Your task to perform on an android device: turn on priority inbox in the gmail app Image 0: 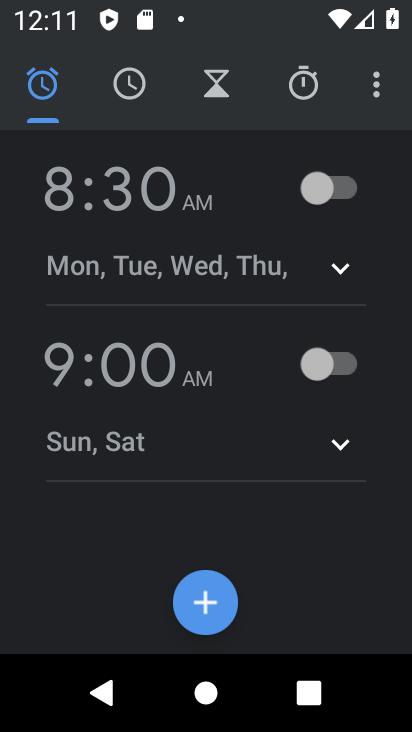
Step 0: press home button
Your task to perform on an android device: turn on priority inbox in the gmail app Image 1: 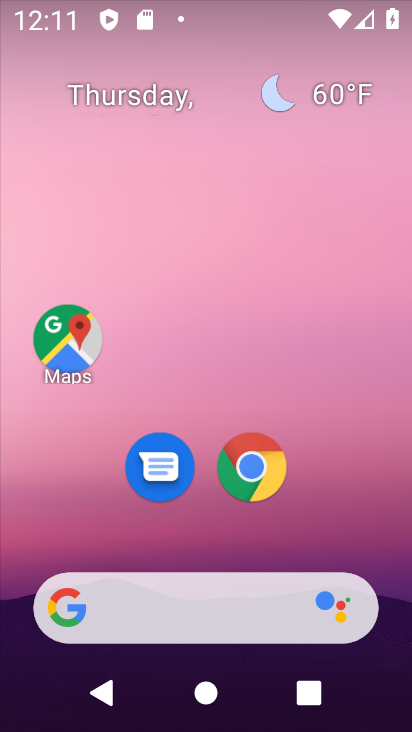
Step 1: drag from (190, 548) to (253, 2)
Your task to perform on an android device: turn on priority inbox in the gmail app Image 2: 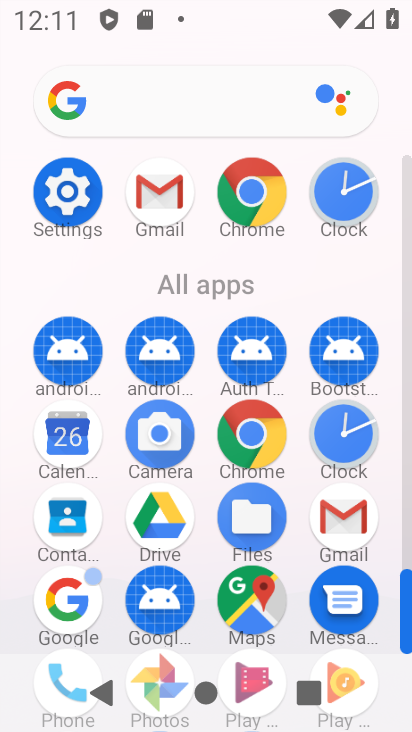
Step 2: click (349, 522)
Your task to perform on an android device: turn on priority inbox in the gmail app Image 3: 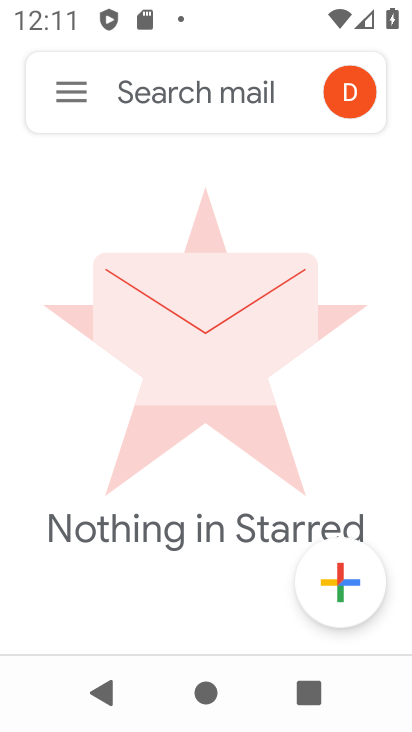
Step 3: click (76, 99)
Your task to perform on an android device: turn on priority inbox in the gmail app Image 4: 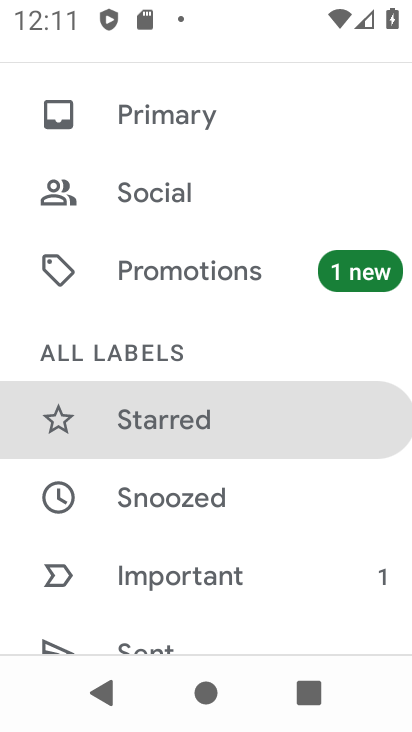
Step 4: drag from (200, 532) to (235, 55)
Your task to perform on an android device: turn on priority inbox in the gmail app Image 5: 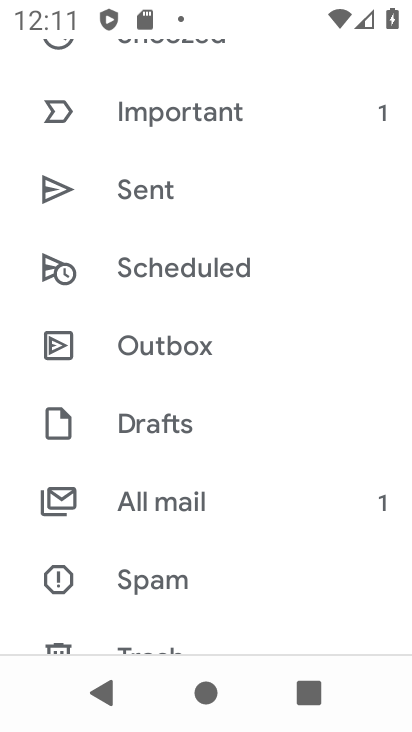
Step 5: drag from (223, 486) to (246, 151)
Your task to perform on an android device: turn on priority inbox in the gmail app Image 6: 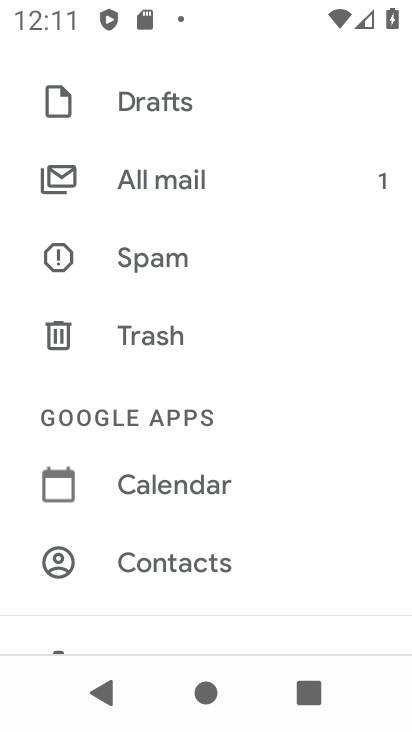
Step 6: drag from (218, 583) to (244, 187)
Your task to perform on an android device: turn on priority inbox in the gmail app Image 7: 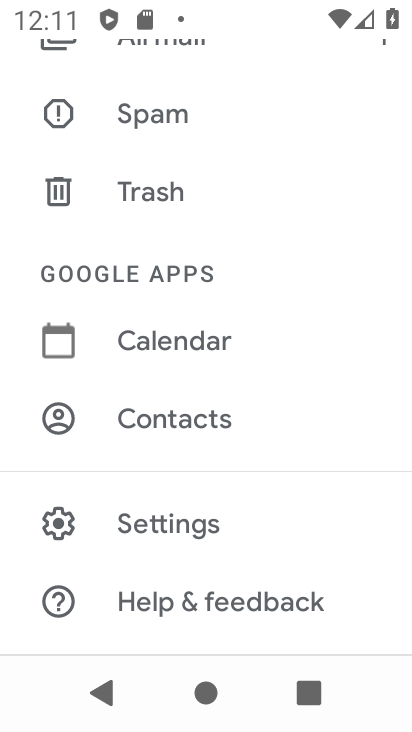
Step 7: click (194, 533)
Your task to perform on an android device: turn on priority inbox in the gmail app Image 8: 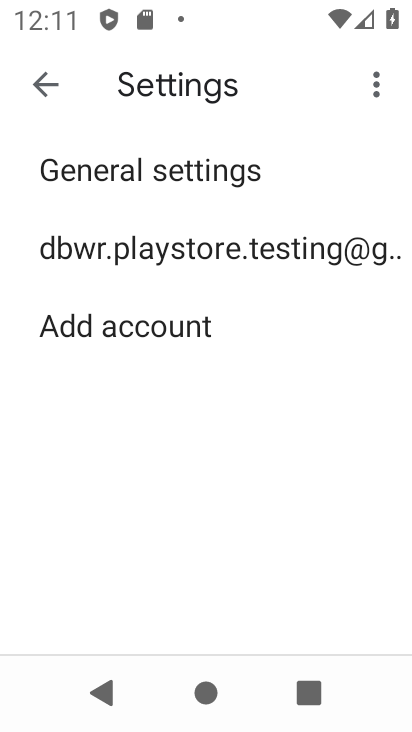
Step 8: click (171, 252)
Your task to perform on an android device: turn on priority inbox in the gmail app Image 9: 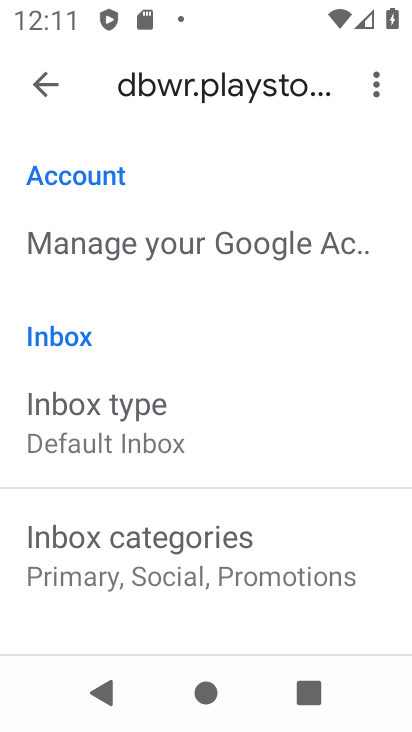
Step 9: click (167, 426)
Your task to perform on an android device: turn on priority inbox in the gmail app Image 10: 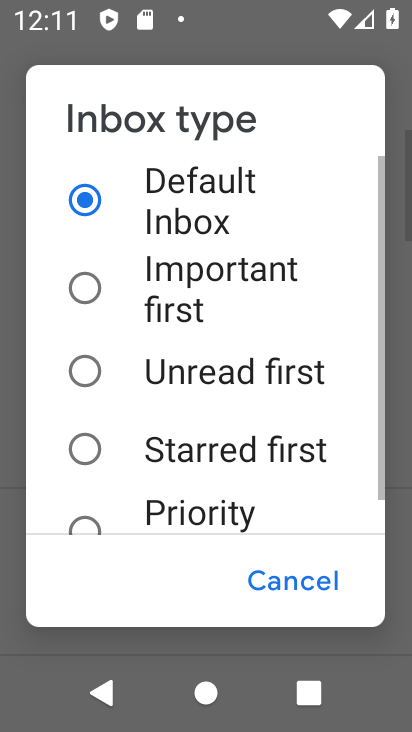
Step 10: drag from (173, 461) to (196, 261)
Your task to perform on an android device: turn on priority inbox in the gmail app Image 11: 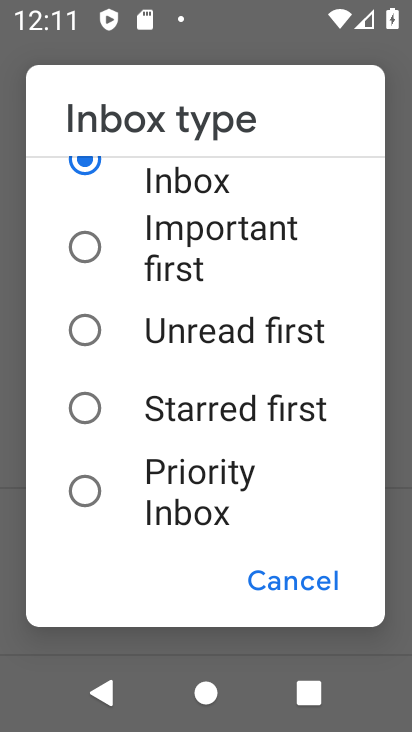
Step 11: click (169, 509)
Your task to perform on an android device: turn on priority inbox in the gmail app Image 12: 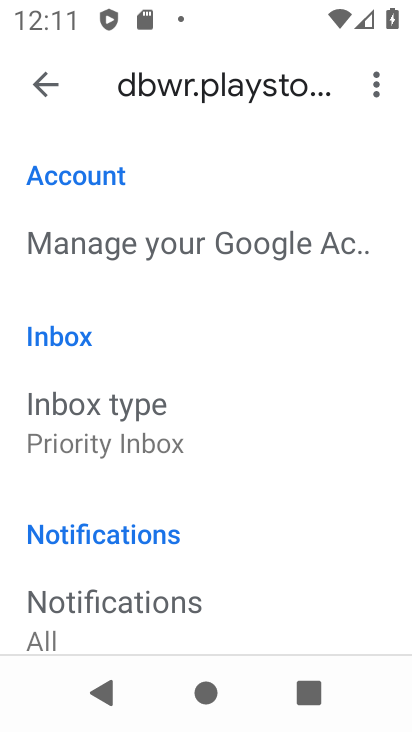
Step 12: task complete